Your task to perform on an android device: turn on the 24-hour format for clock Image 0: 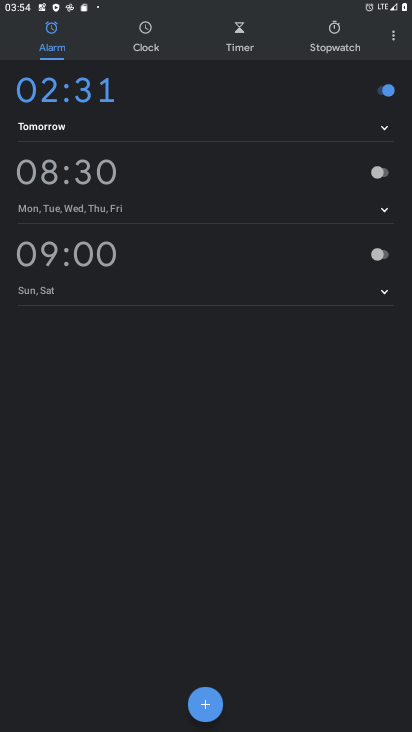
Step 0: press home button
Your task to perform on an android device: turn on the 24-hour format for clock Image 1: 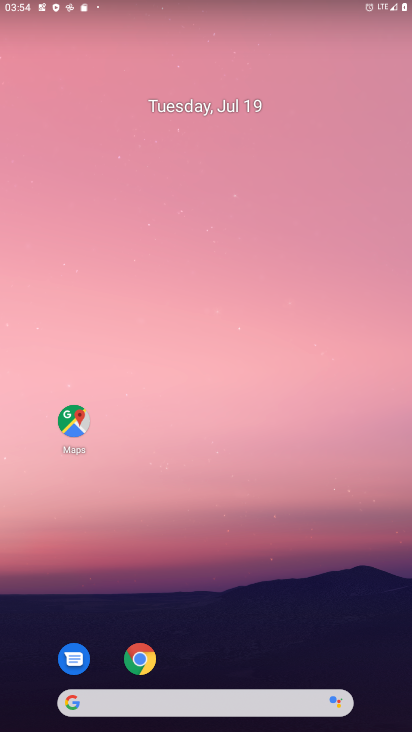
Step 1: drag from (308, 646) to (306, 252)
Your task to perform on an android device: turn on the 24-hour format for clock Image 2: 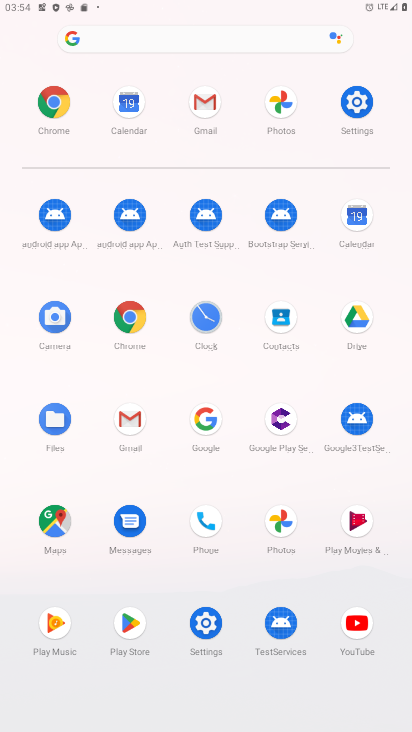
Step 2: click (210, 326)
Your task to perform on an android device: turn on the 24-hour format for clock Image 3: 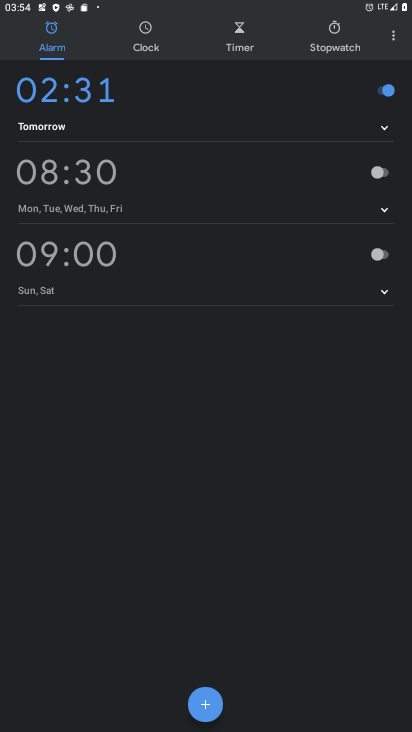
Step 3: click (398, 30)
Your task to perform on an android device: turn on the 24-hour format for clock Image 4: 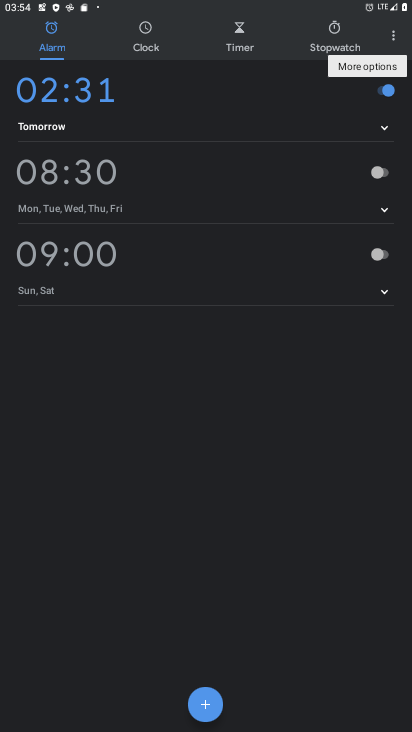
Step 4: click (398, 30)
Your task to perform on an android device: turn on the 24-hour format for clock Image 5: 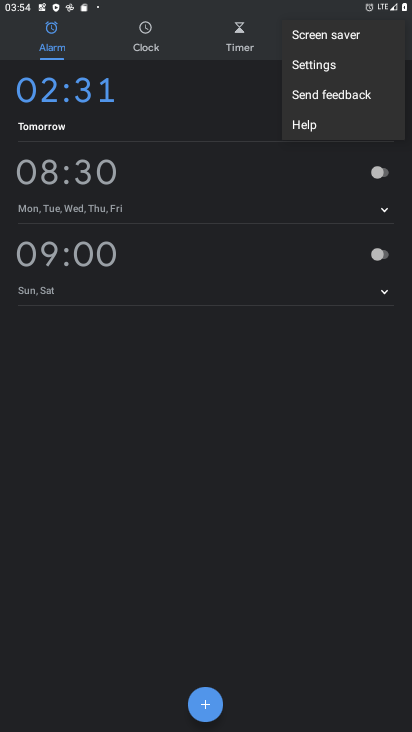
Step 5: click (329, 63)
Your task to perform on an android device: turn on the 24-hour format for clock Image 6: 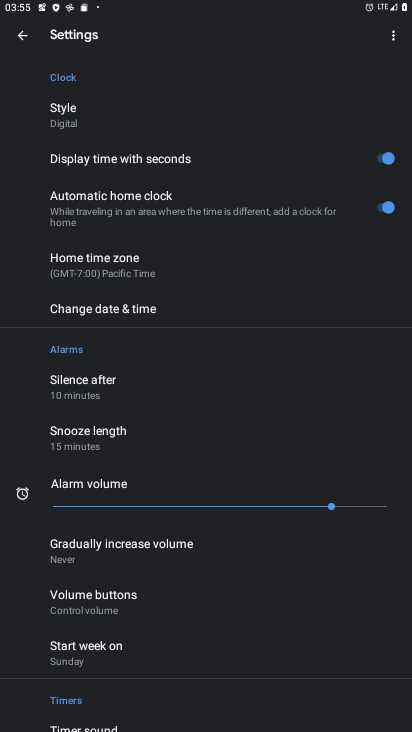
Step 6: click (68, 315)
Your task to perform on an android device: turn on the 24-hour format for clock Image 7: 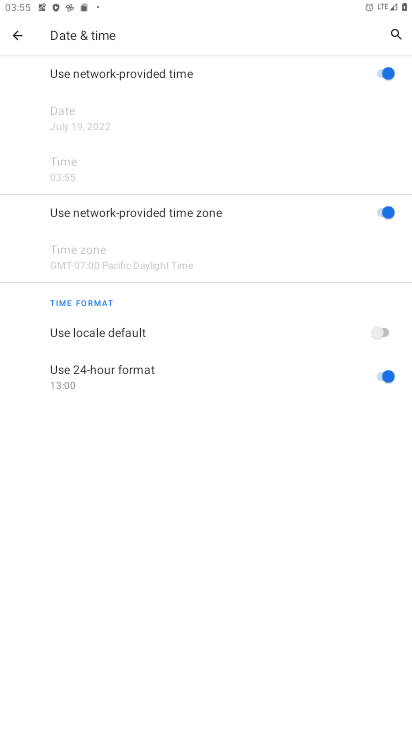
Step 7: click (291, 329)
Your task to perform on an android device: turn on the 24-hour format for clock Image 8: 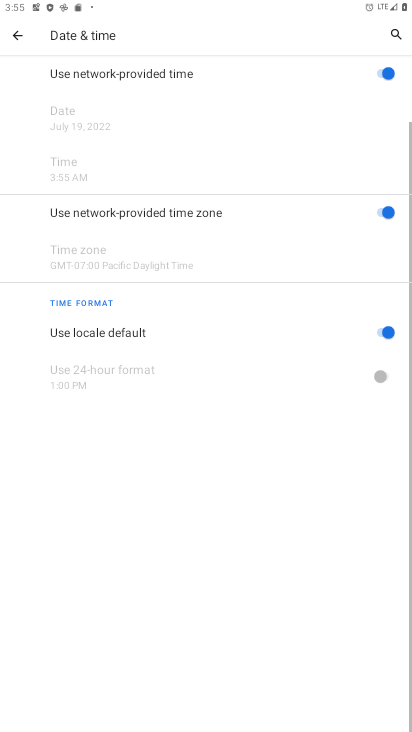
Step 8: click (302, 388)
Your task to perform on an android device: turn on the 24-hour format for clock Image 9: 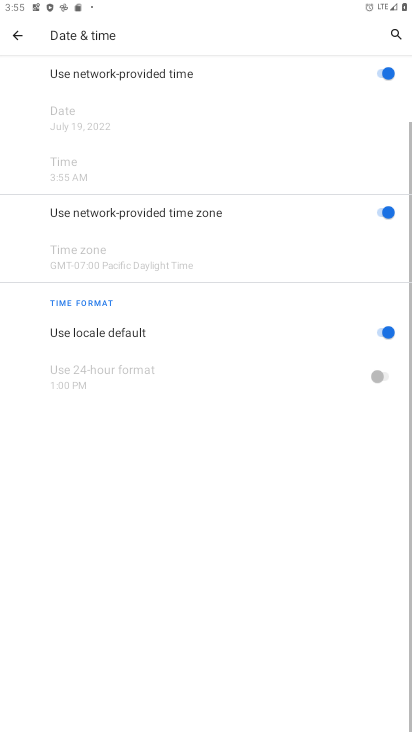
Step 9: click (302, 388)
Your task to perform on an android device: turn on the 24-hour format for clock Image 10: 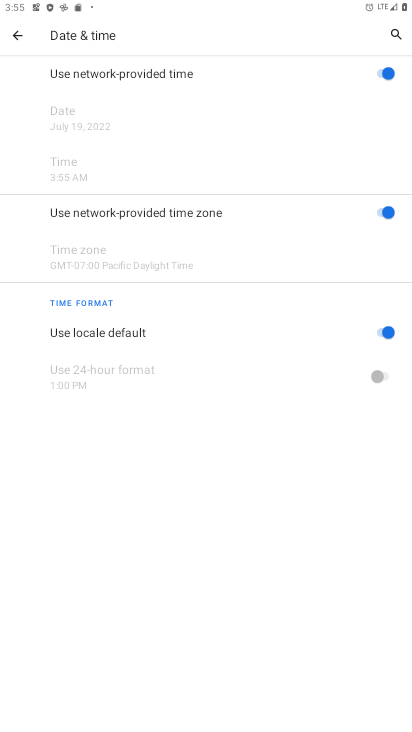
Step 10: click (289, 343)
Your task to perform on an android device: turn on the 24-hour format for clock Image 11: 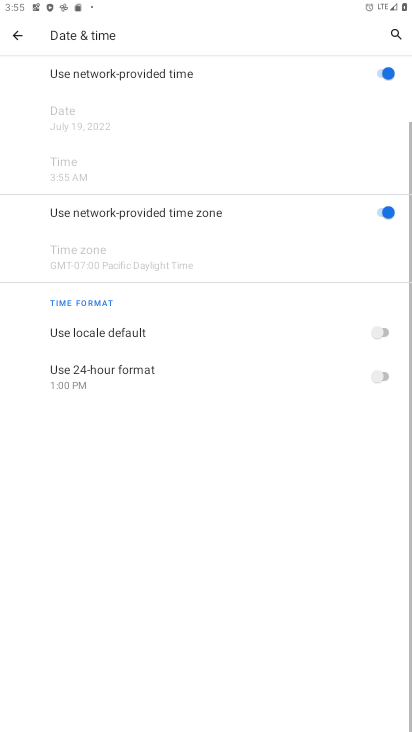
Step 11: click (290, 357)
Your task to perform on an android device: turn on the 24-hour format for clock Image 12: 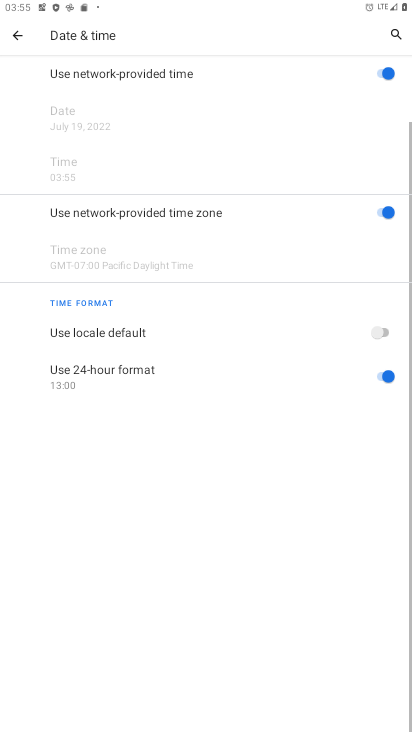
Step 12: task complete